Your task to perform on an android device: open a bookmark in the chrome app Image 0: 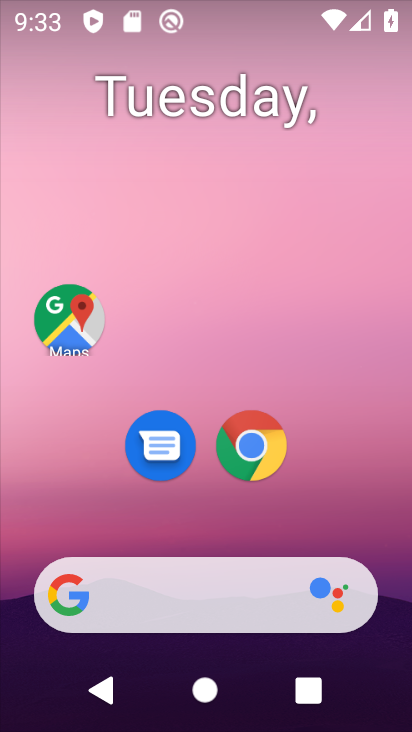
Step 0: drag from (195, 531) to (354, 3)
Your task to perform on an android device: open a bookmark in the chrome app Image 1: 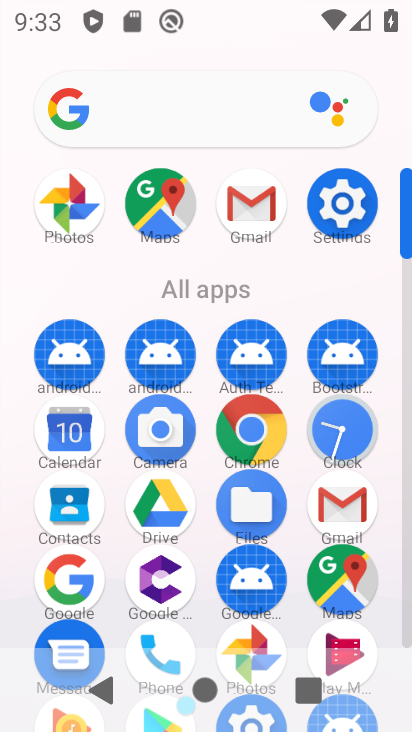
Step 1: click (245, 429)
Your task to perform on an android device: open a bookmark in the chrome app Image 2: 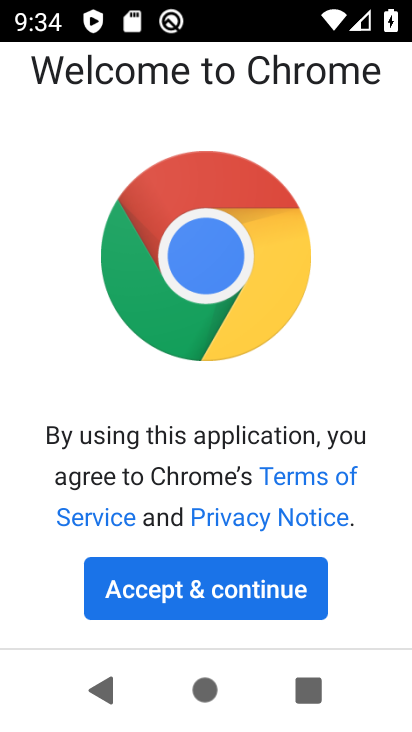
Step 2: click (196, 582)
Your task to perform on an android device: open a bookmark in the chrome app Image 3: 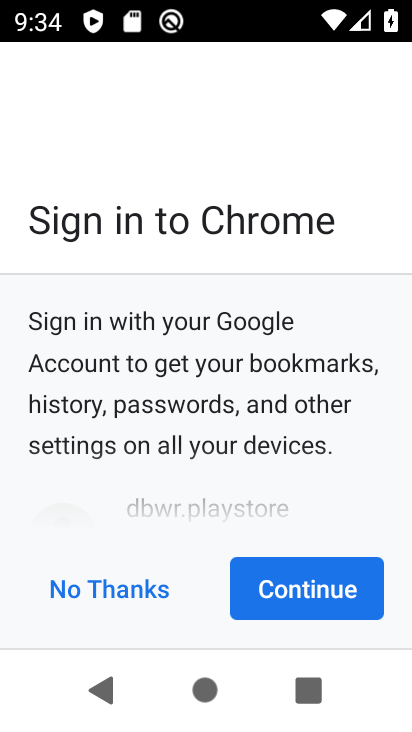
Step 3: click (315, 587)
Your task to perform on an android device: open a bookmark in the chrome app Image 4: 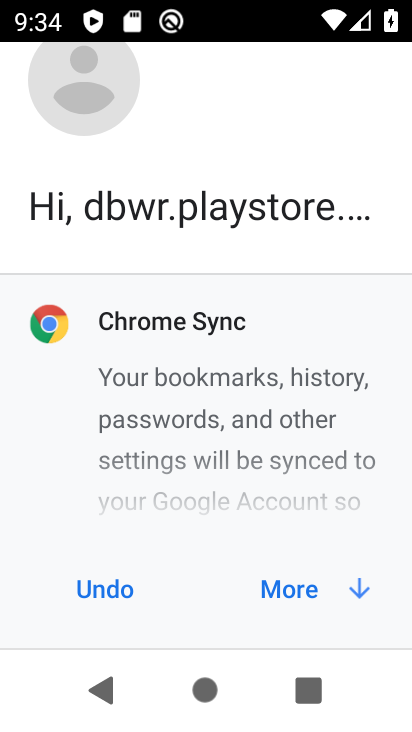
Step 4: click (314, 587)
Your task to perform on an android device: open a bookmark in the chrome app Image 5: 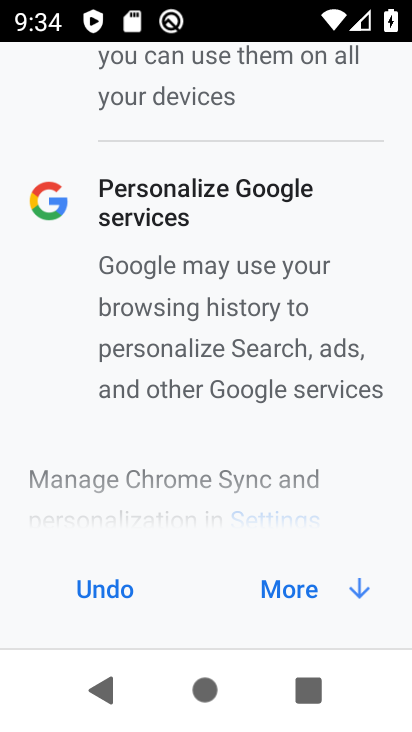
Step 5: click (314, 587)
Your task to perform on an android device: open a bookmark in the chrome app Image 6: 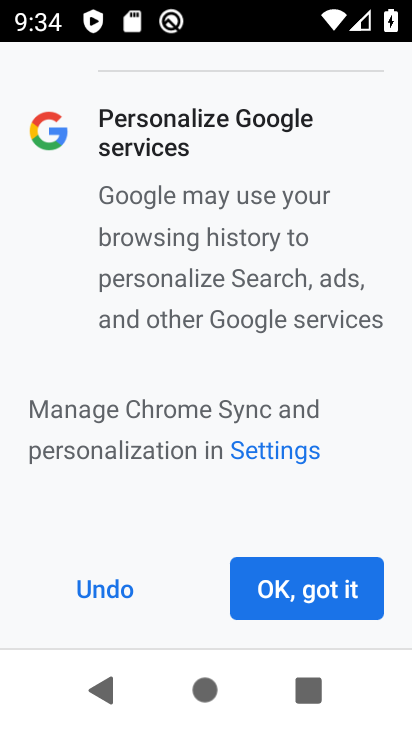
Step 6: click (314, 587)
Your task to perform on an android device: open a bookmark in the chrome app Image 7: 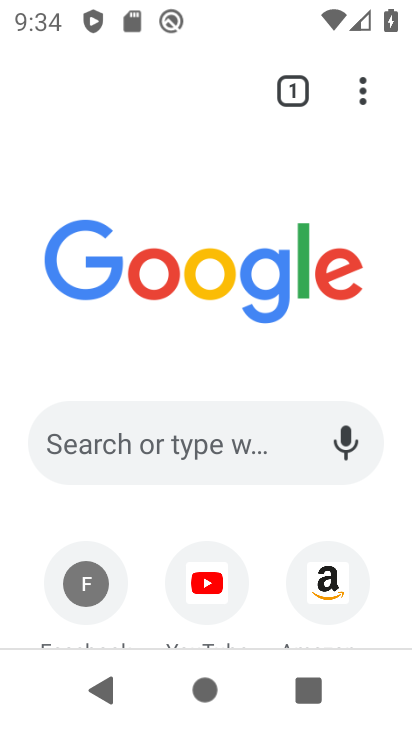
Step 7: click (358, 87)
Your task to perform on an android device: open a bookmark in the chrome app Image 8: 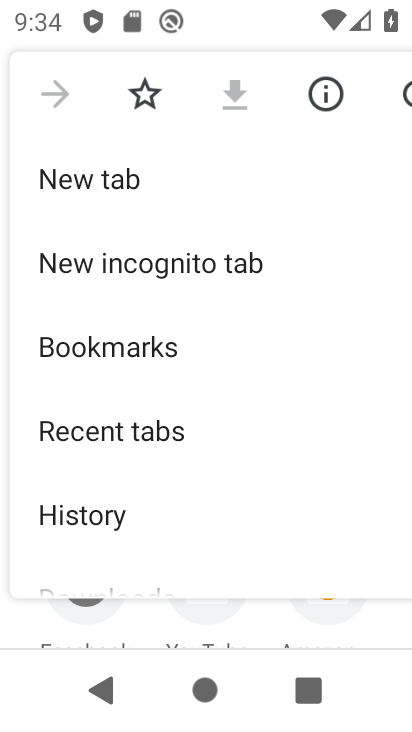
Step 8: click (195, 342)
Your task to perform on an android device: open a bookmark in the chrome app Image 9: 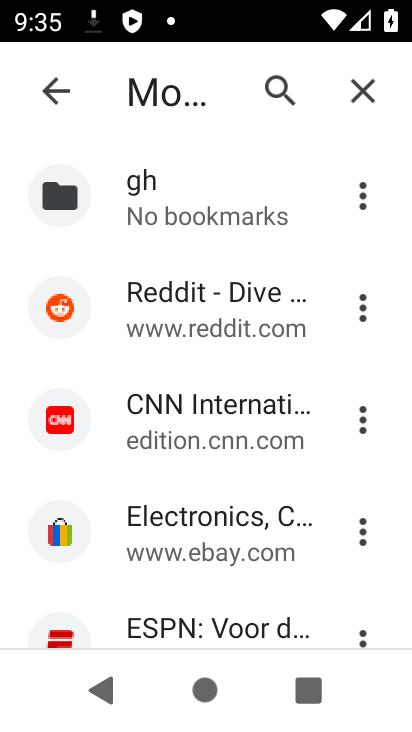
Step 9: click (213, 528)
Your task to perform on an android device: open a bookmark in the chrome app Image 10: 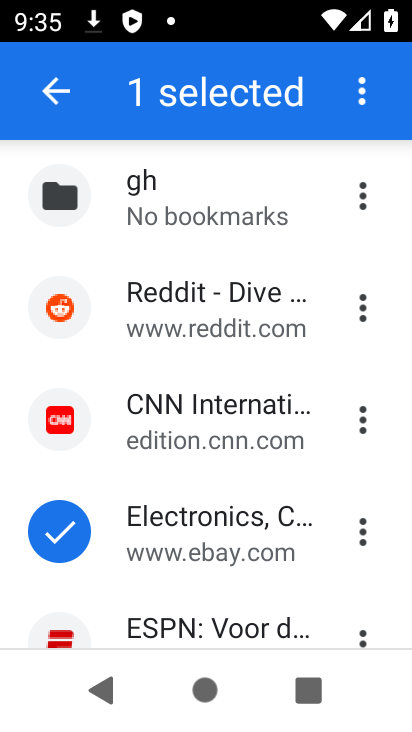
Step 10: task complete